Your task to perform on an android device: change your default location settings in chrome Image 0: 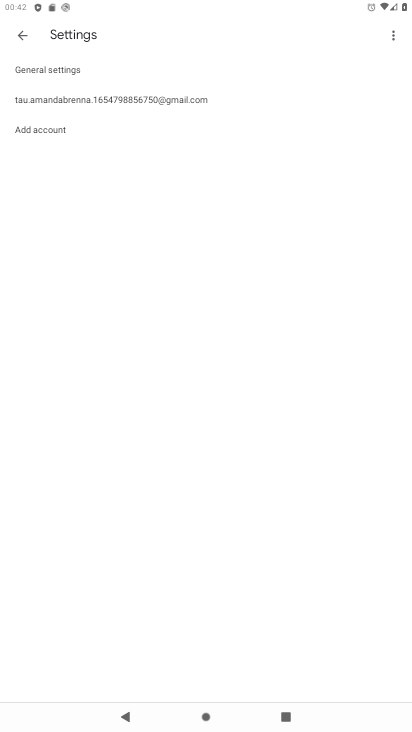
Step 0: press home button
Your task to perform on an android device: change your default location settings in chrome Image 1: 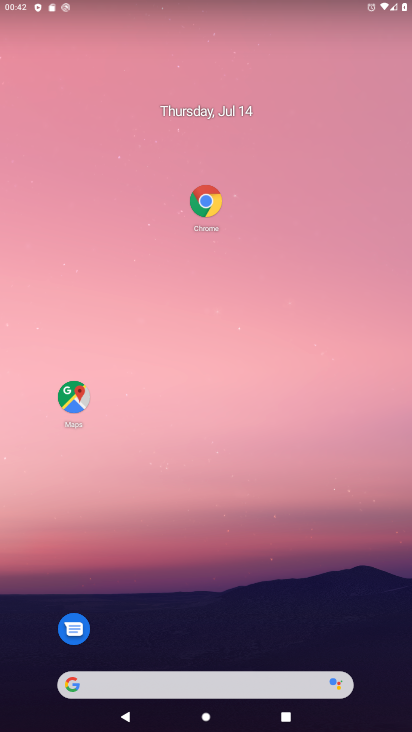
Step 1: click (221, 214)
Your task to perform on an android device: change your default location settings in chrome Image 2: 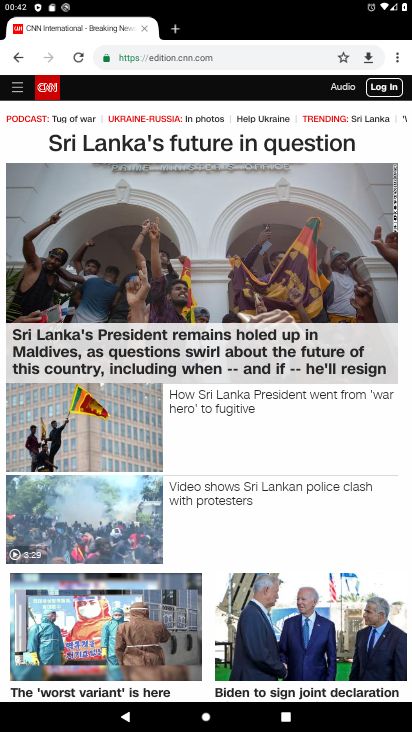
Step 2: click (394, 54)
Your task to perform on an android device: change your default location settings in chrome Image 3: 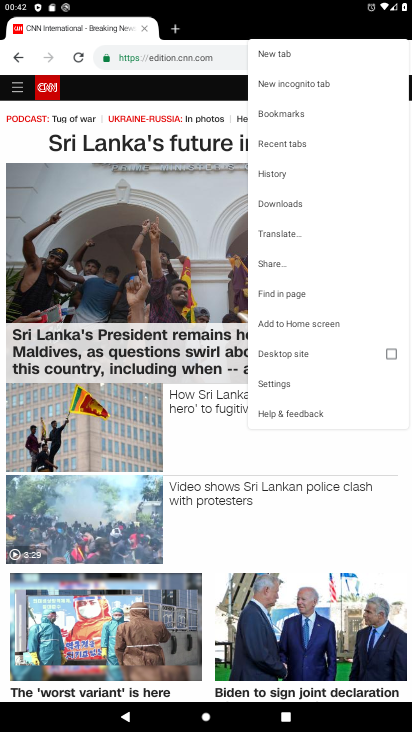
Step 3: click (262, 379)
Your task to perform on an android device: change your default location settings in chrome Image 4: 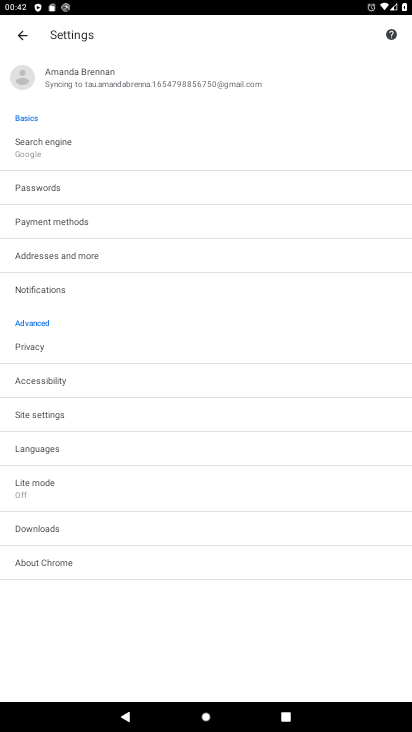
Step 4: click (36, 423)
Your task to perform on an android device: change your default location settings in chrome Image 5: 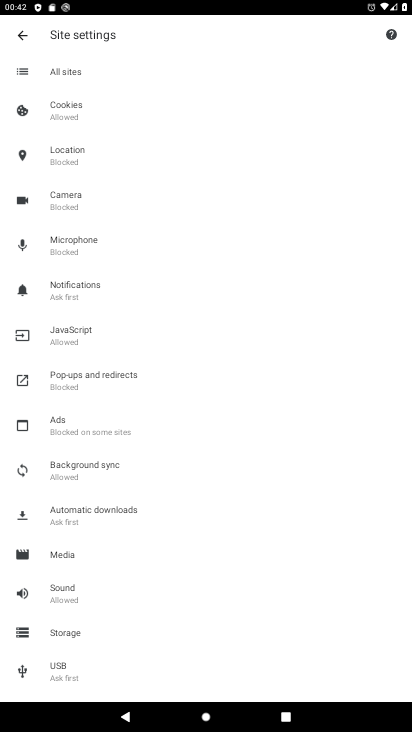
Step 5: click (61, 145)
Your task to perform on an android device: change your default location settings in chrome Image 6: 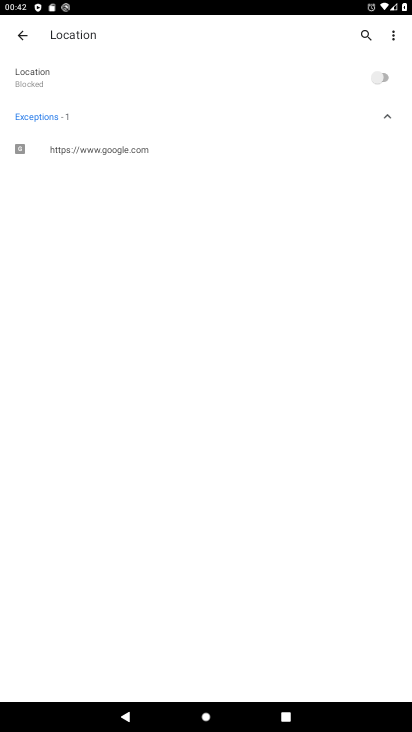
Step 6: click (377, 85)
Your task to perform on an android device: change your default location settings in chrome Image 7: 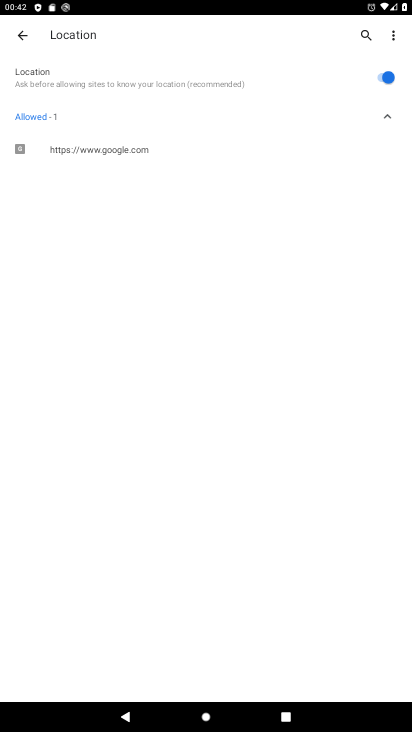
Step 7: task complete